Your task to perform on an android device: What's on my calendar tomorrow? Image 0: 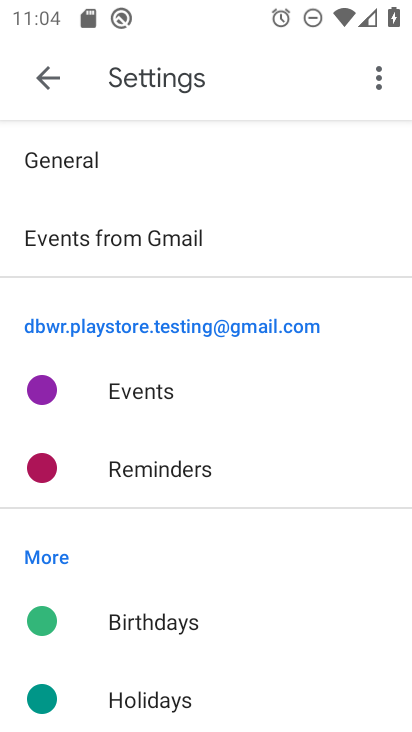
Step 0: press home button
Your task to perform on an android device: What's on my calendar tomorrow? Image 1: 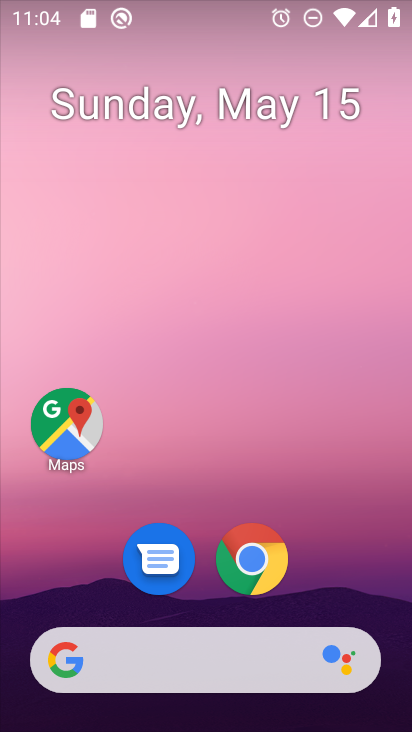
Step 1: drag from (341, 609) to (336, 109)
Your task to perform on an android device: What's on my calendar tomorrow? Image 2: 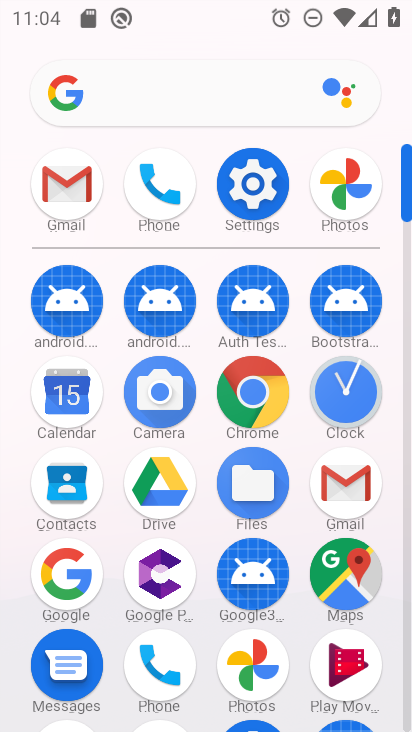
Step 2: click (48, 423)
Your task to perform on an android device: What's on my calendar tomorrow? Image 3: 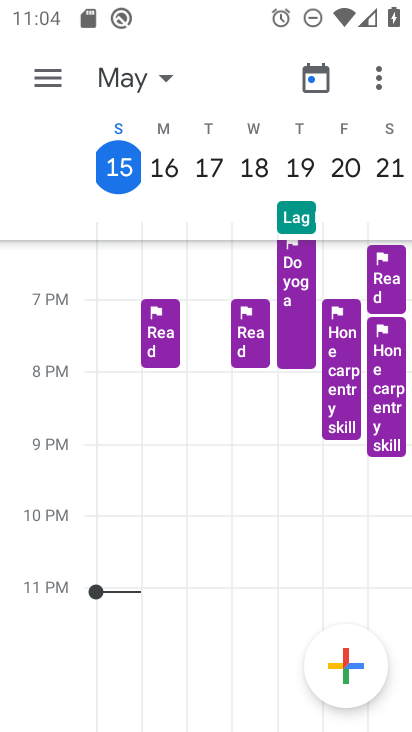
Step 3: task complete